Your task to perform on an android device: change timer sound Image 0: 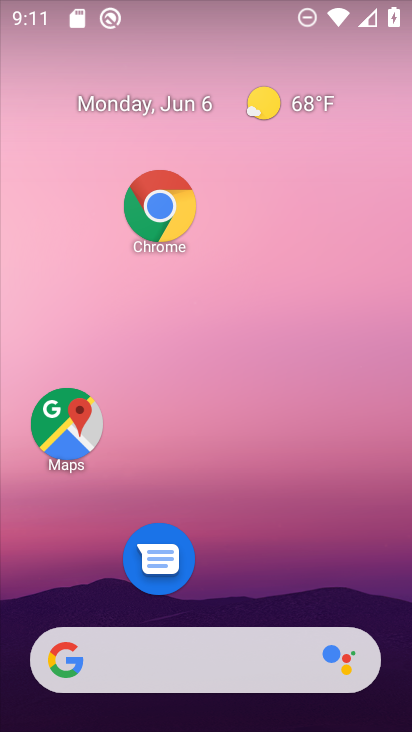
Step 0: drag from (246, 559) to (215, 205)
Your task to perform on an android device: change timer sound Image 1: 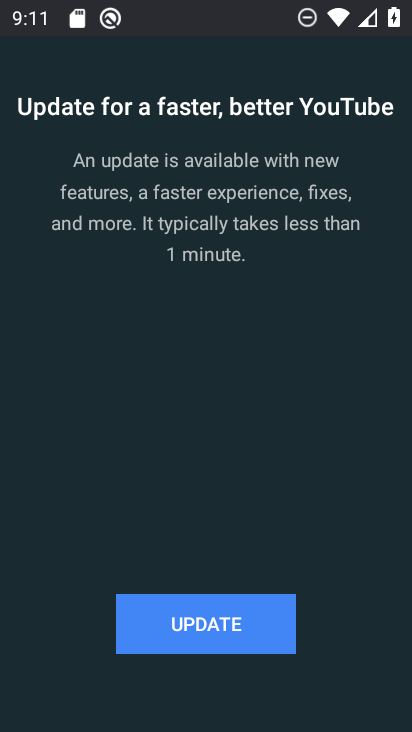
Step 1: press back button
Your task to perform on an android device: change timer sound Image 2: 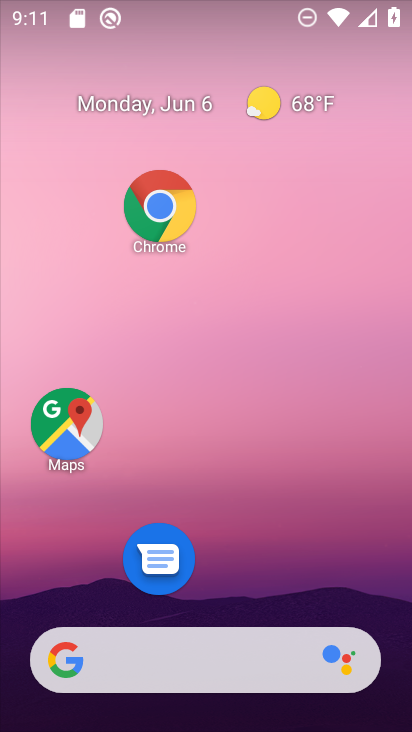
Step 2: drag from (257, 689) to (136, 168)
Your task to perform on an android device: change timer sound Image 3: 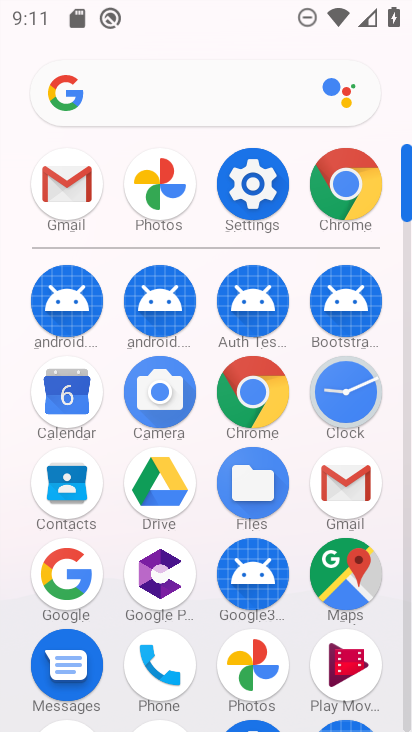
Step 3: click (271, 195)
Your task to perform on an android device: change timer sound Image 4: 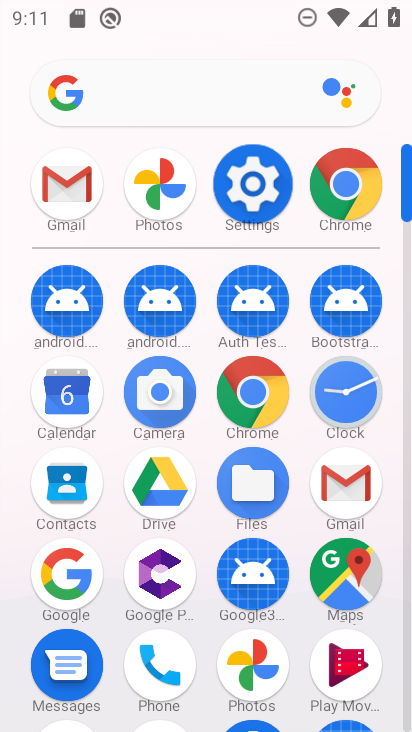
Step 4: click (238, 175)
Your task to perform on an android device: change timer sound Image 5: 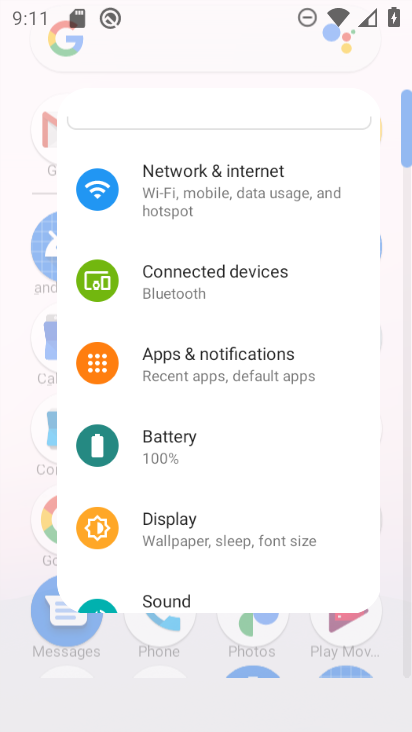
Step 5: click (242, 177)
Your task to perform on an android device: change timer sound Image 6: 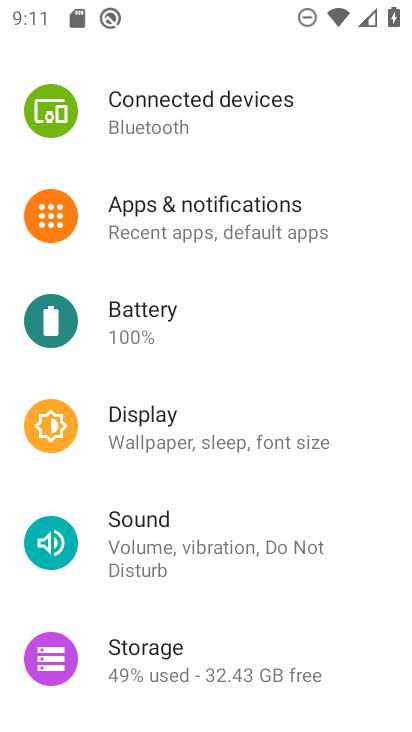
Step 6: click (242, 178)
Your task to perform on an android device: change timer sound Image 7: 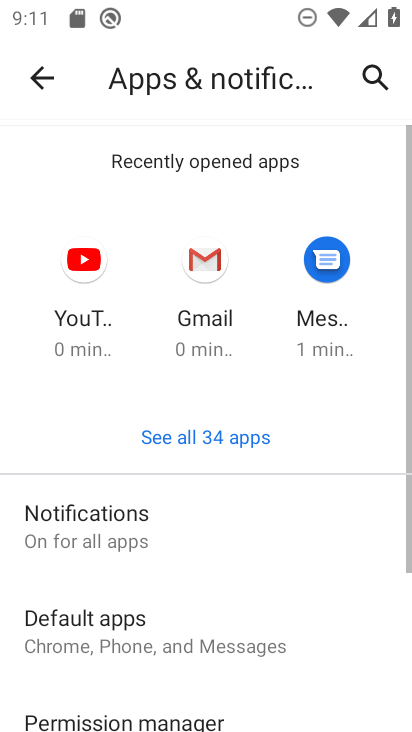
Step 7: click (38, 75)
Your task to perform on an android device: change timer sound Image 8: 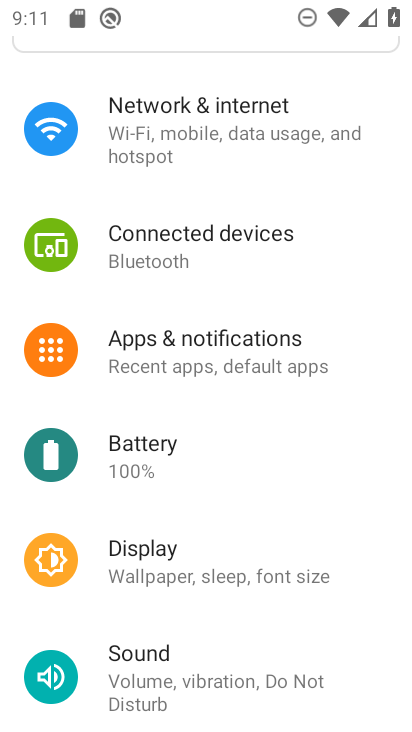
Step 8: click (135, 677)
Your task to perform on an android device: change timer sound Image 9: 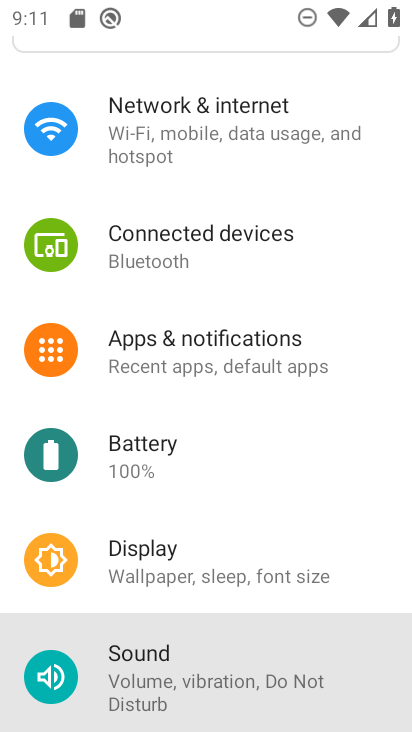
Step 9: click (135, 678)
Your task to perform on an android device: change timer sound Image 10: 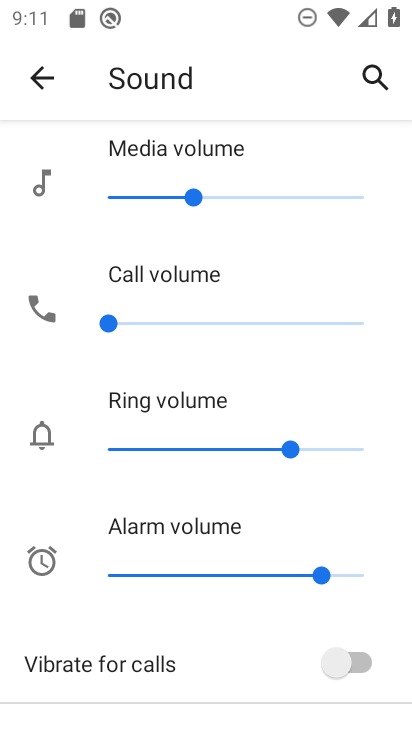
Step 10: task complete